Your task to perform on an android device: Open settings Image 0: 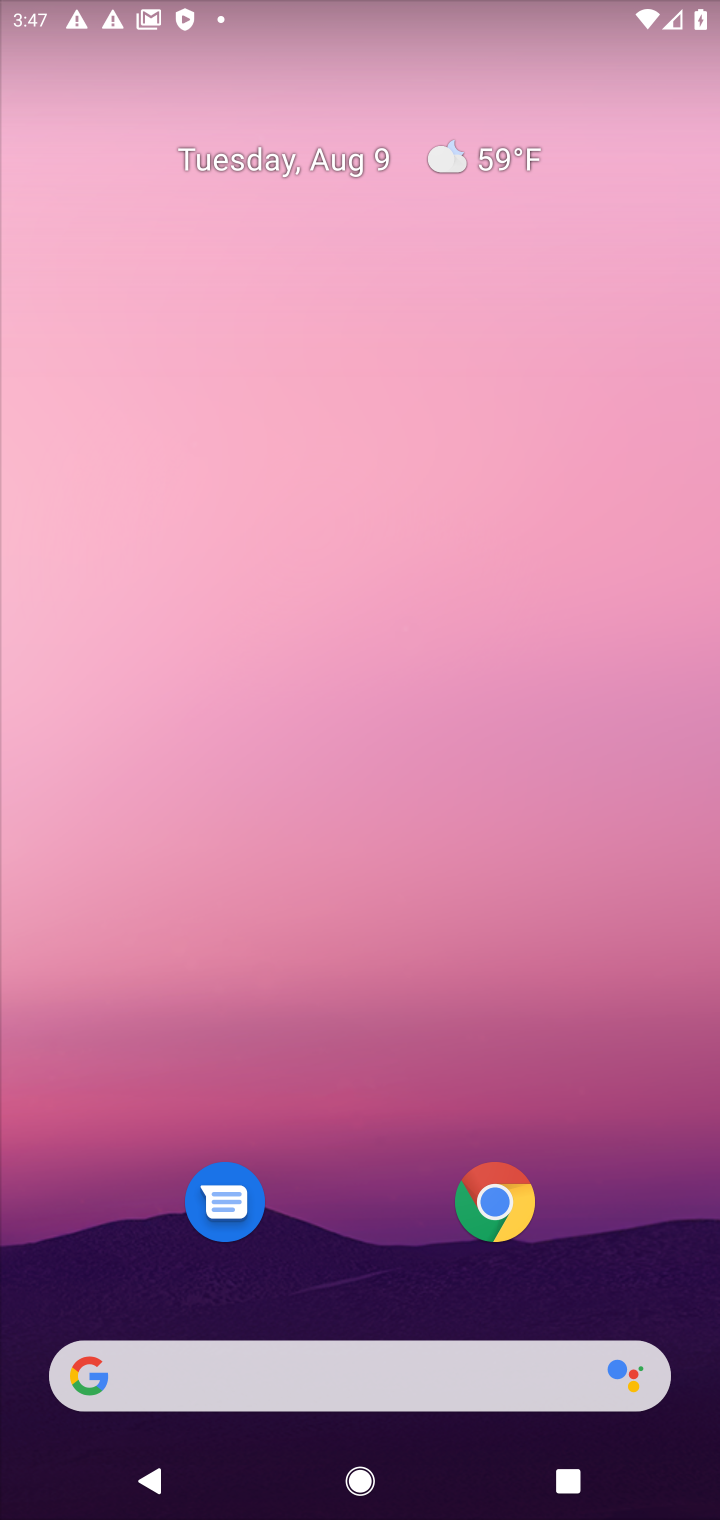
Step 0: press home button
Your task to perform on an android device: Open settings Image 1: 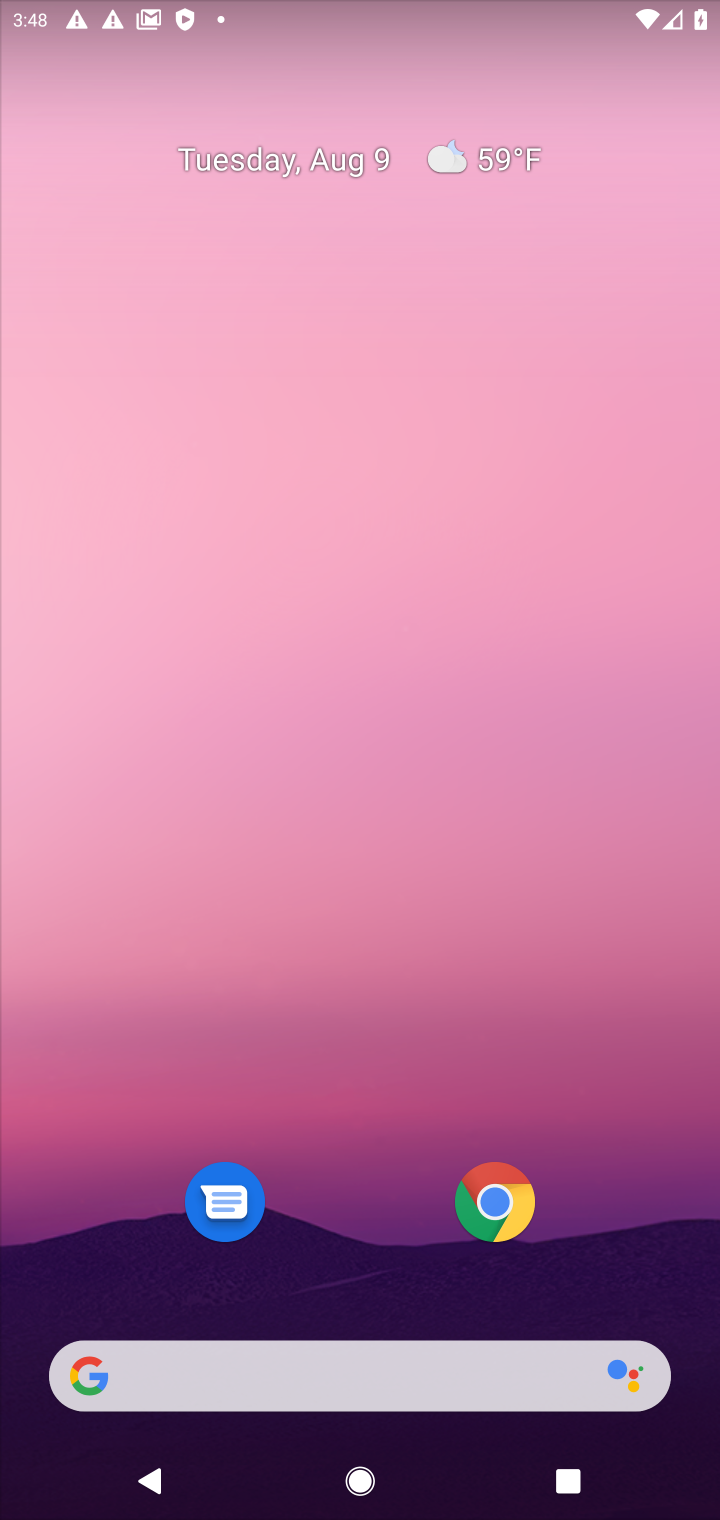
Step 1: drag from (368, 1304) to (340, 390)
Your task to perform on an android device: Open settings Image 2: 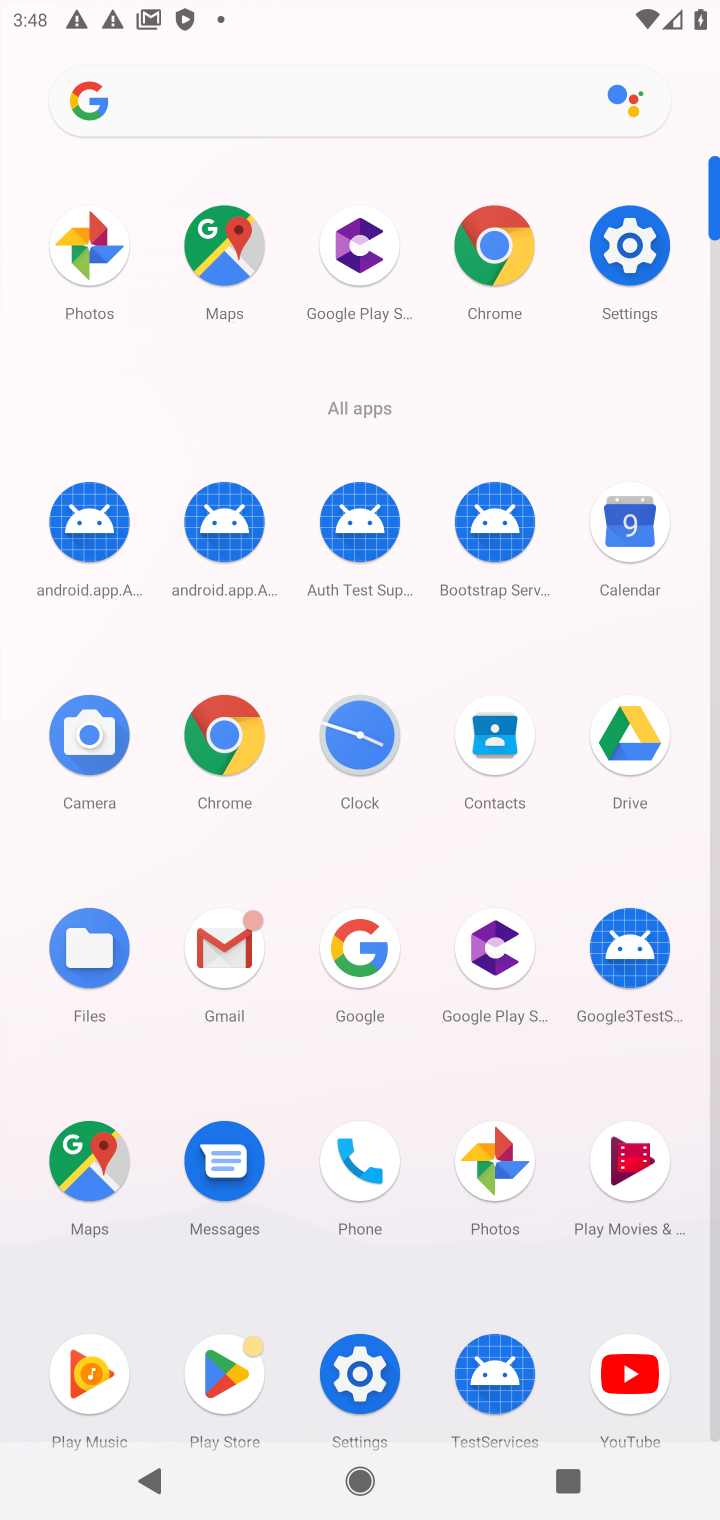
Step 2: click (366, 1360)
Your task to perform on an android device: Open settings Image 3: 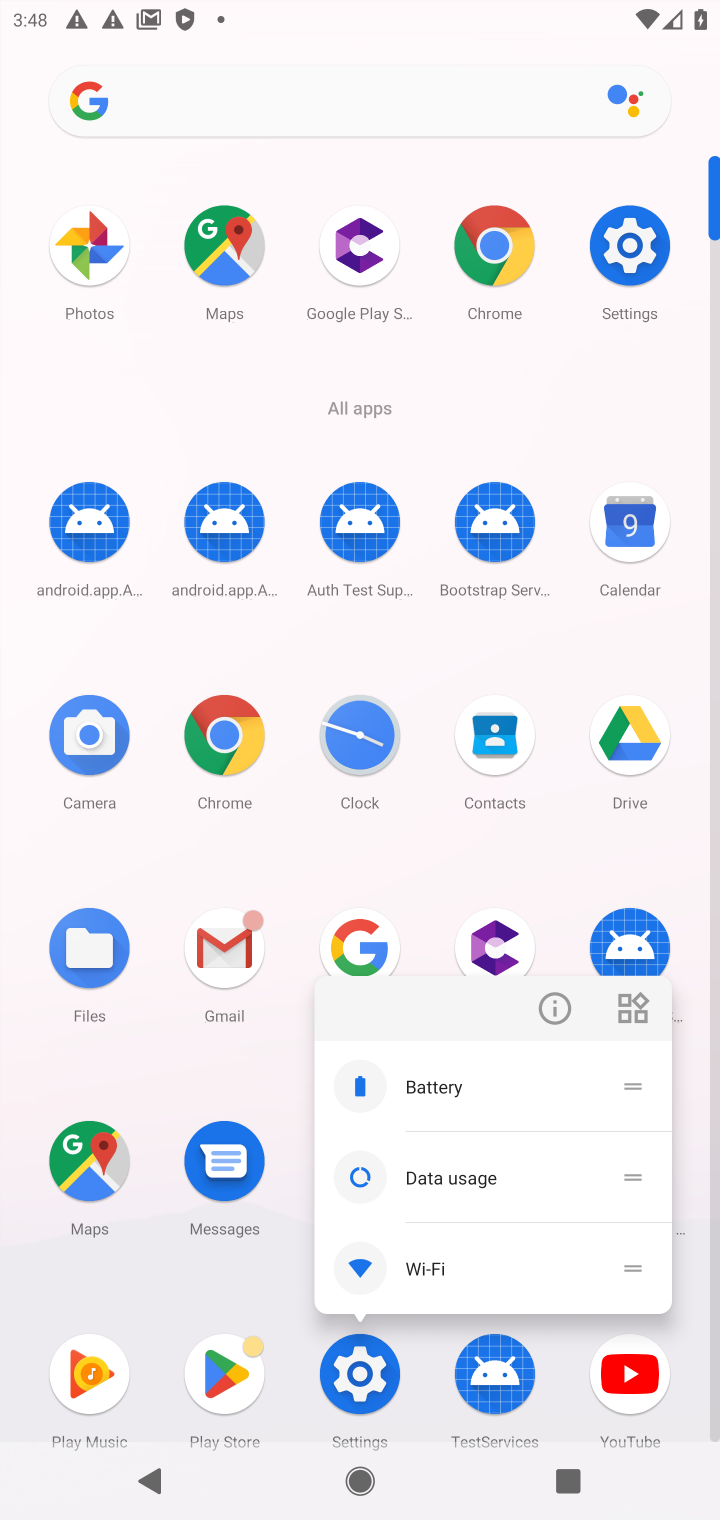
Step 3: click (348, 1360)
Your task to perform on an android device: Open settings Image 4: 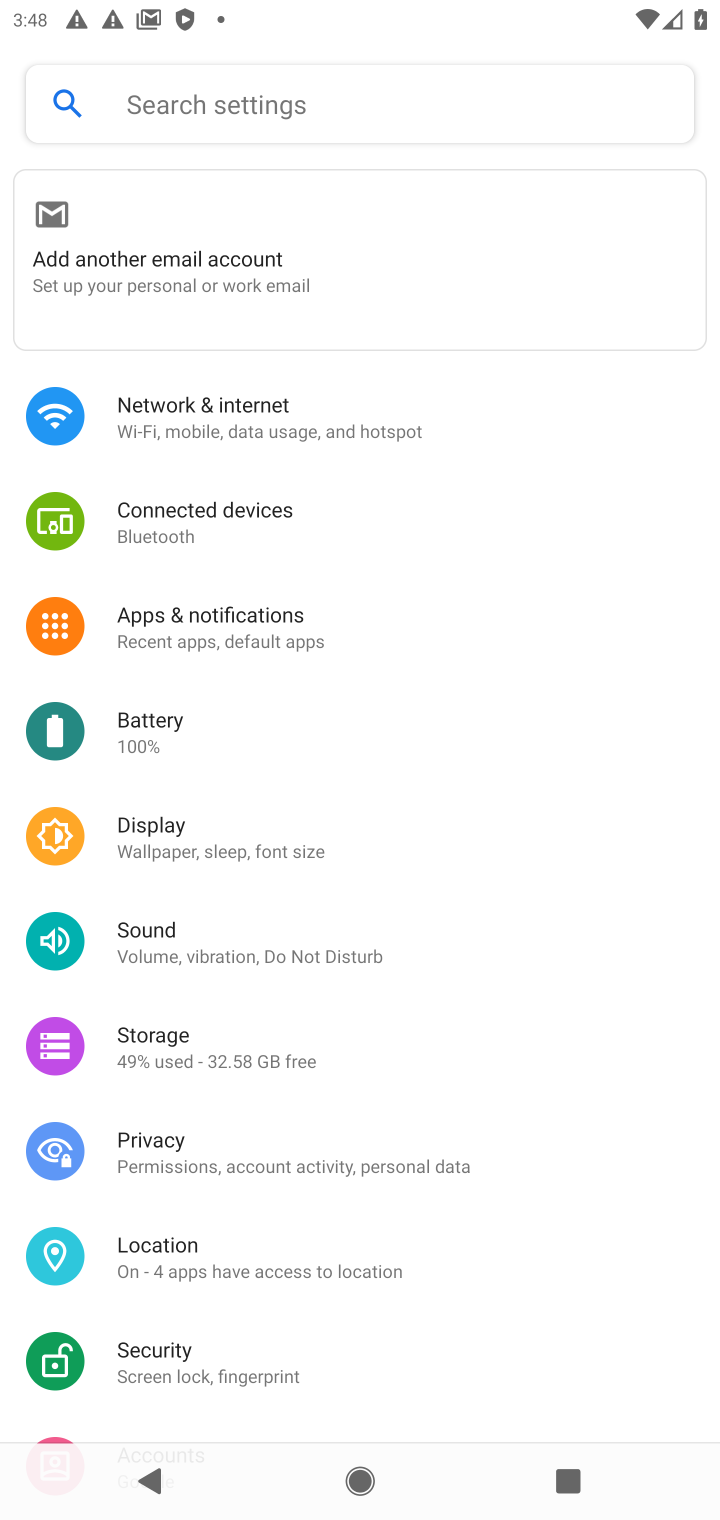
Step 4: task complete